Your task to perform on an android device: check storage Image 0: 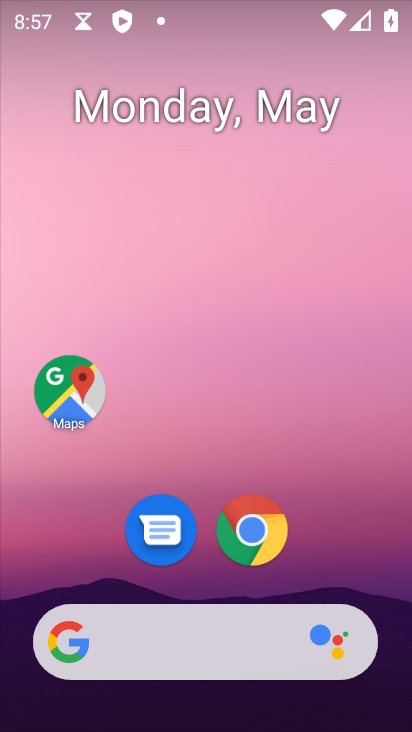
Step 0: drag from (320, 405) to (250, 12)
Your task to perform on an android device: check storage Image 1: 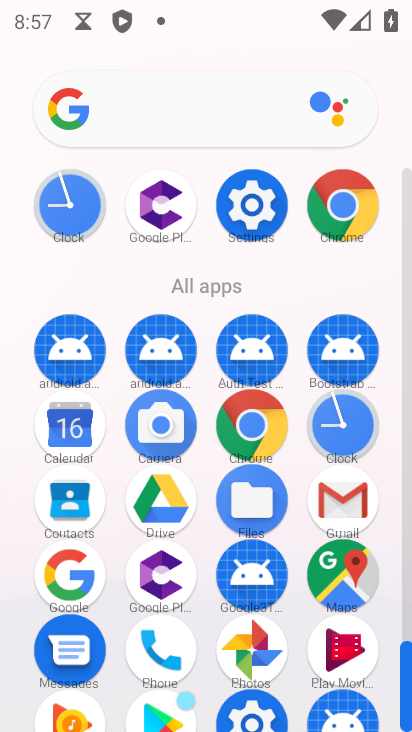
Step 1: drag from (14, 532) to (23, 363)
Your task to perform on an android device: check storage Image 2: 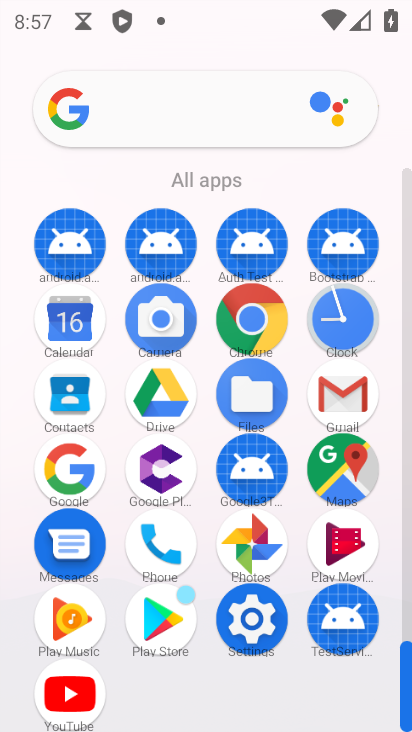
Step 2: click (251, 617)
Your task to perform on an android device: check storage Image 3: 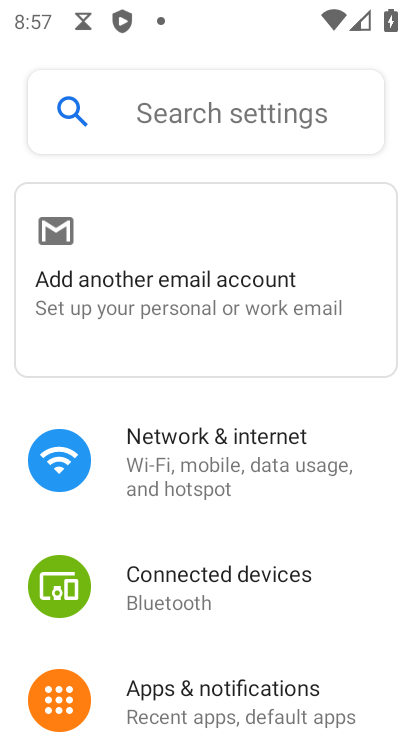
Step 3: drag from (303, 592) to (299, 71)
Your task to perform on an android device: check storage Image 4: 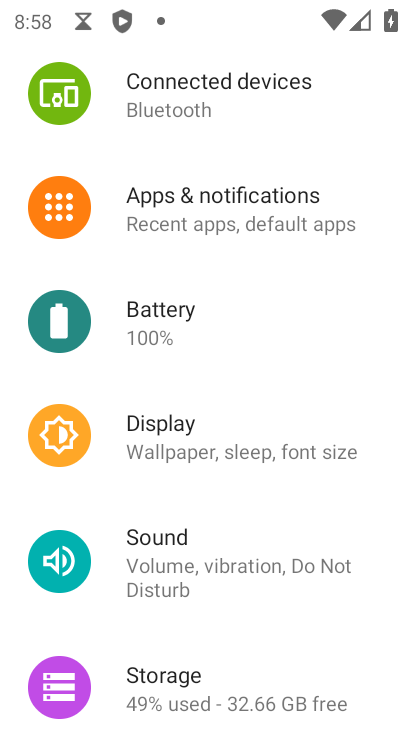
Step 4: drag from (306, 530) to (294, 273)
Your task to perform on an android device: check storage Image 5: 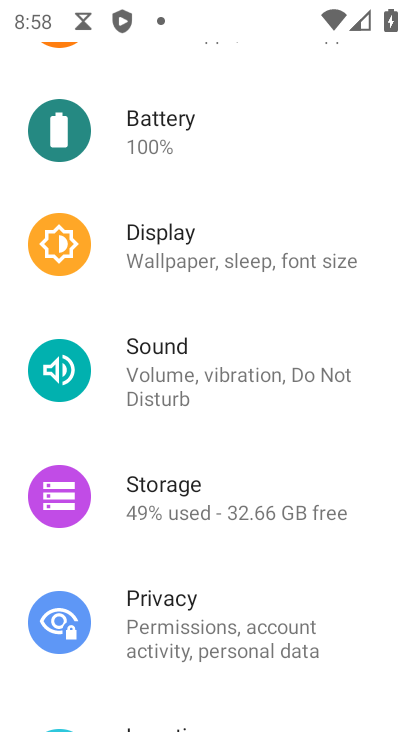
Step 5: click (192, 499)
Your task to perform on an android device: check storage Image 6: 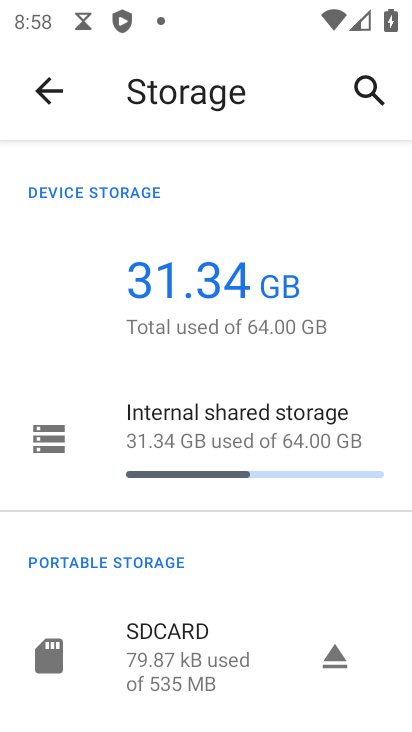
Step 6: task complete